Your task to perform on an android device: check storage Image 0: 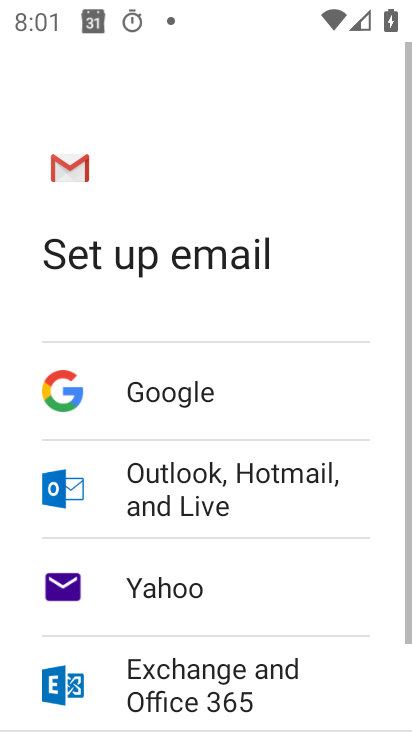
Step 0: press home button
Your task to perform on an android device: check storage Image 1: 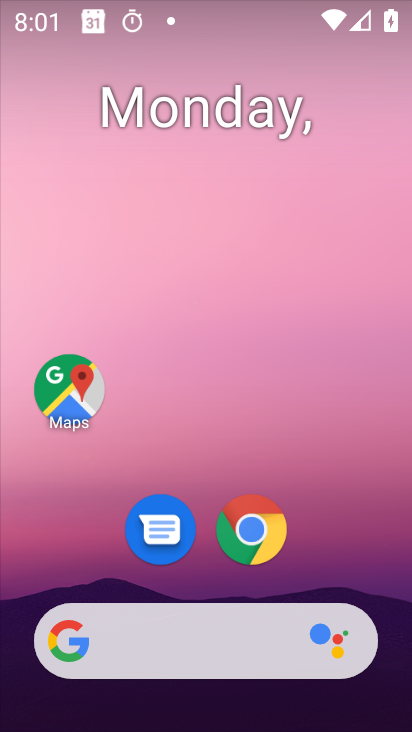
Step 1: drag from (50, 615) to (264, 132)
Your task to perform on an android device: check storage Image 2: 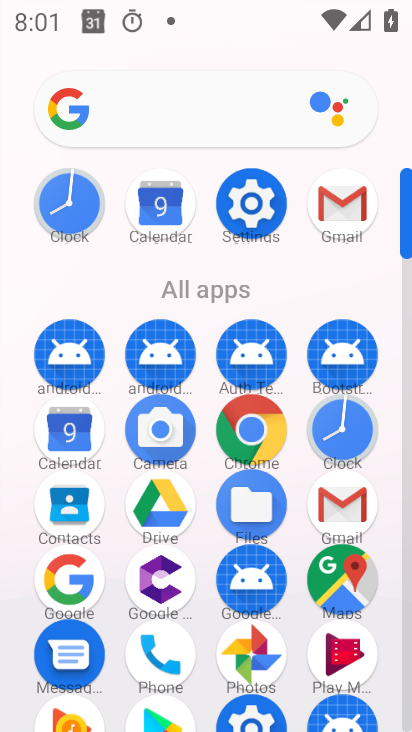
Step 2: click (252, 213)
Your task to perform on an android device: check storage Image 3: 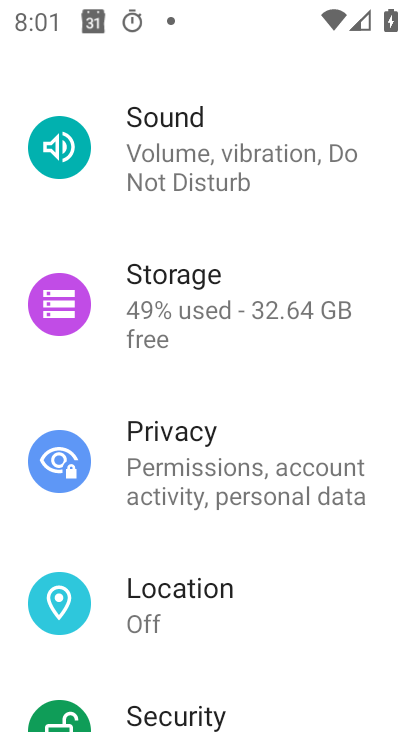
Step 3: click (231, 282)
Your task to perform on an android device: check storage Image 4: 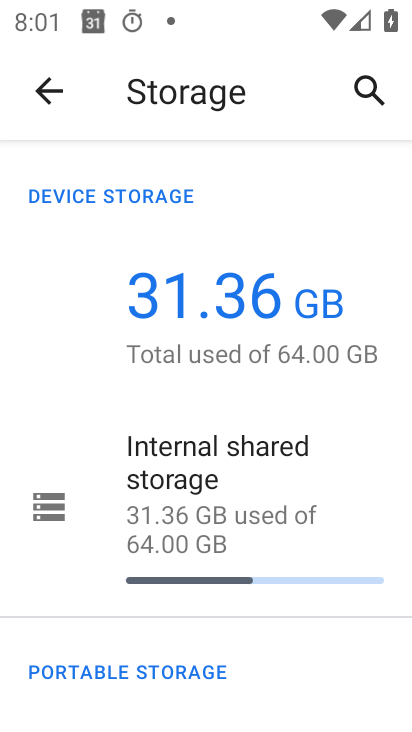
Step 4: task complete